Your task to perform on an android device: Clear the cart on amazon. Add "macbook air" to the cart on amazon Image 0: 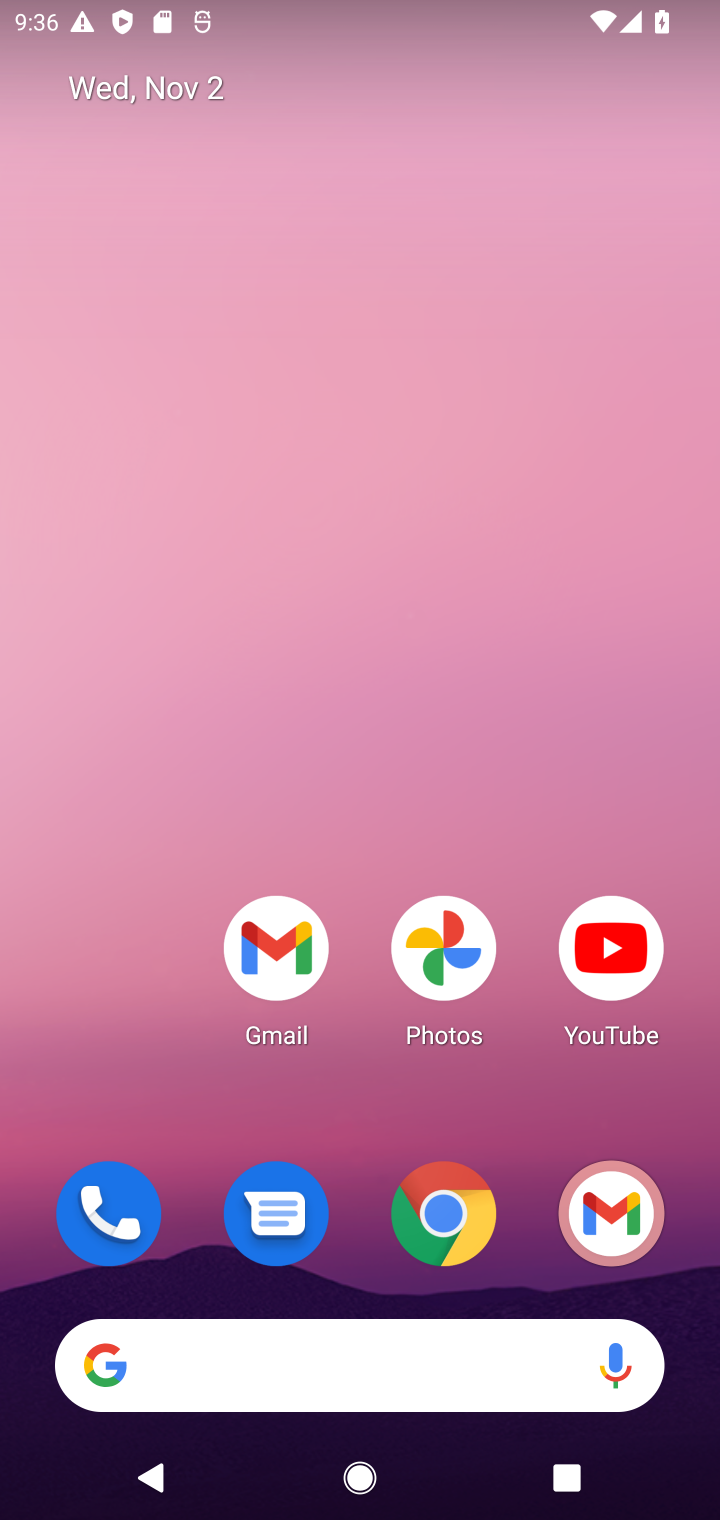
Step 0: click (450, 1230)
Your task to perform on an android device: Clear the cart on amazon. Add "macbook air" to the cart on amazon Image 1: 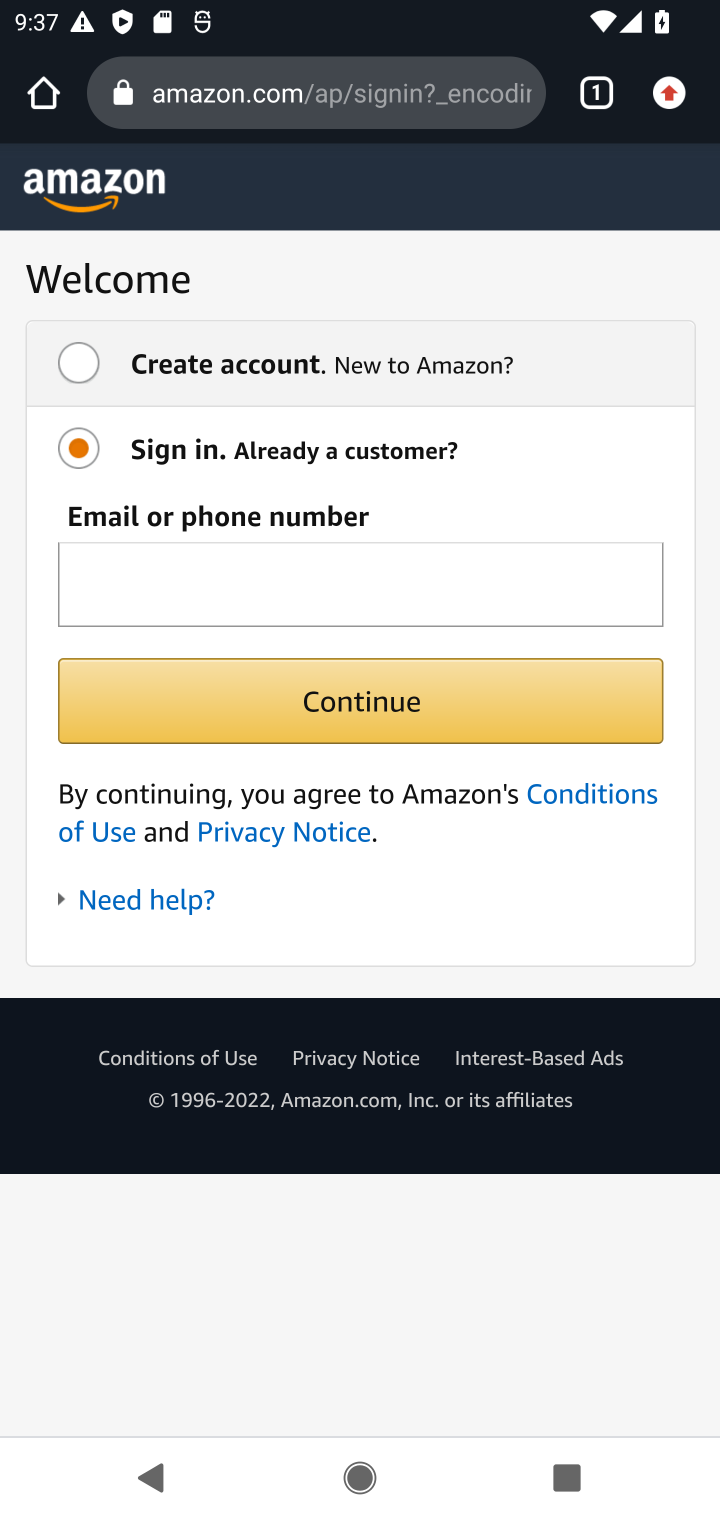
Step 1: press back button
Your task to perform on an android device: Clear the cart on amazon. Add "macbook air" to the cart on amazon Image 2: 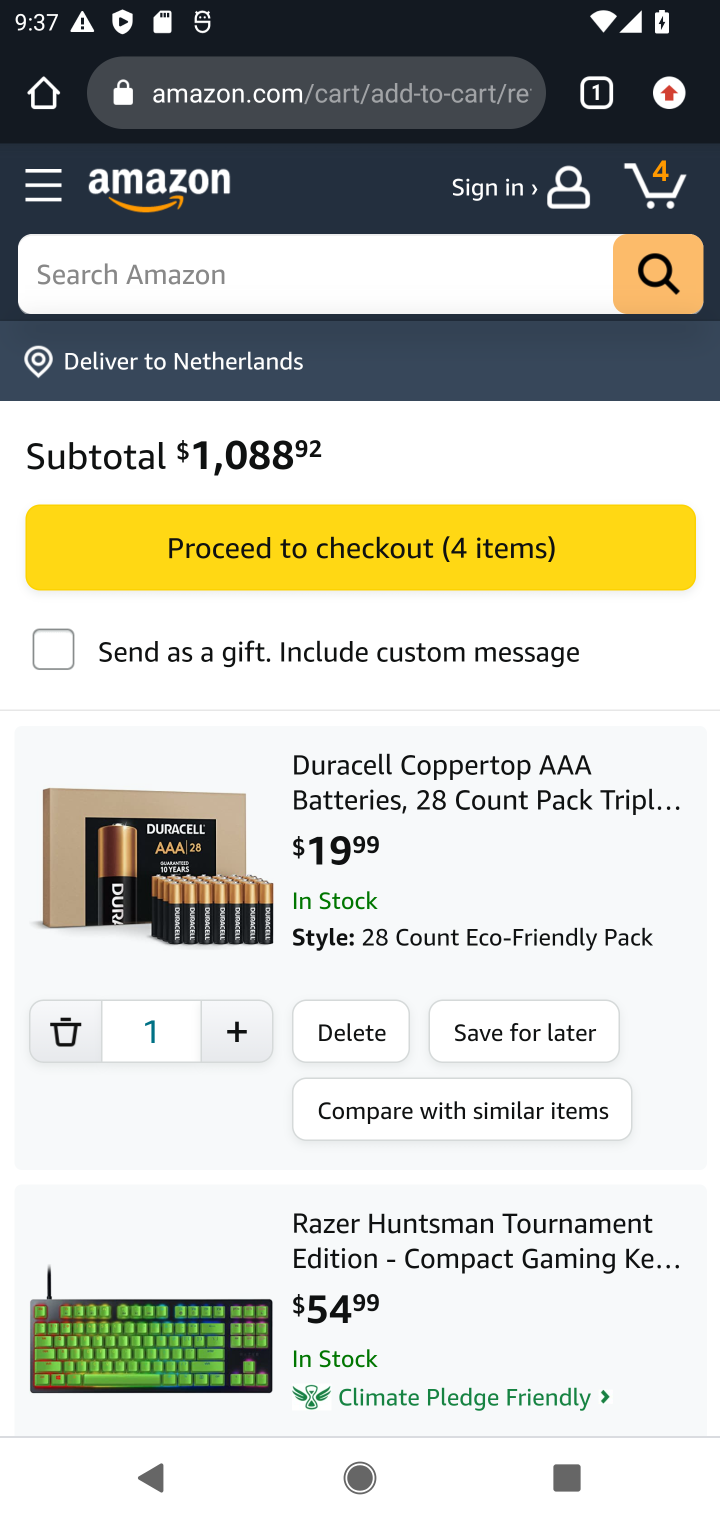
Step 2: click (291, 290)
Your task to perform on an android device: Clear the cart on amazon. Add "macbook air" to the cart on amazon Image 3: 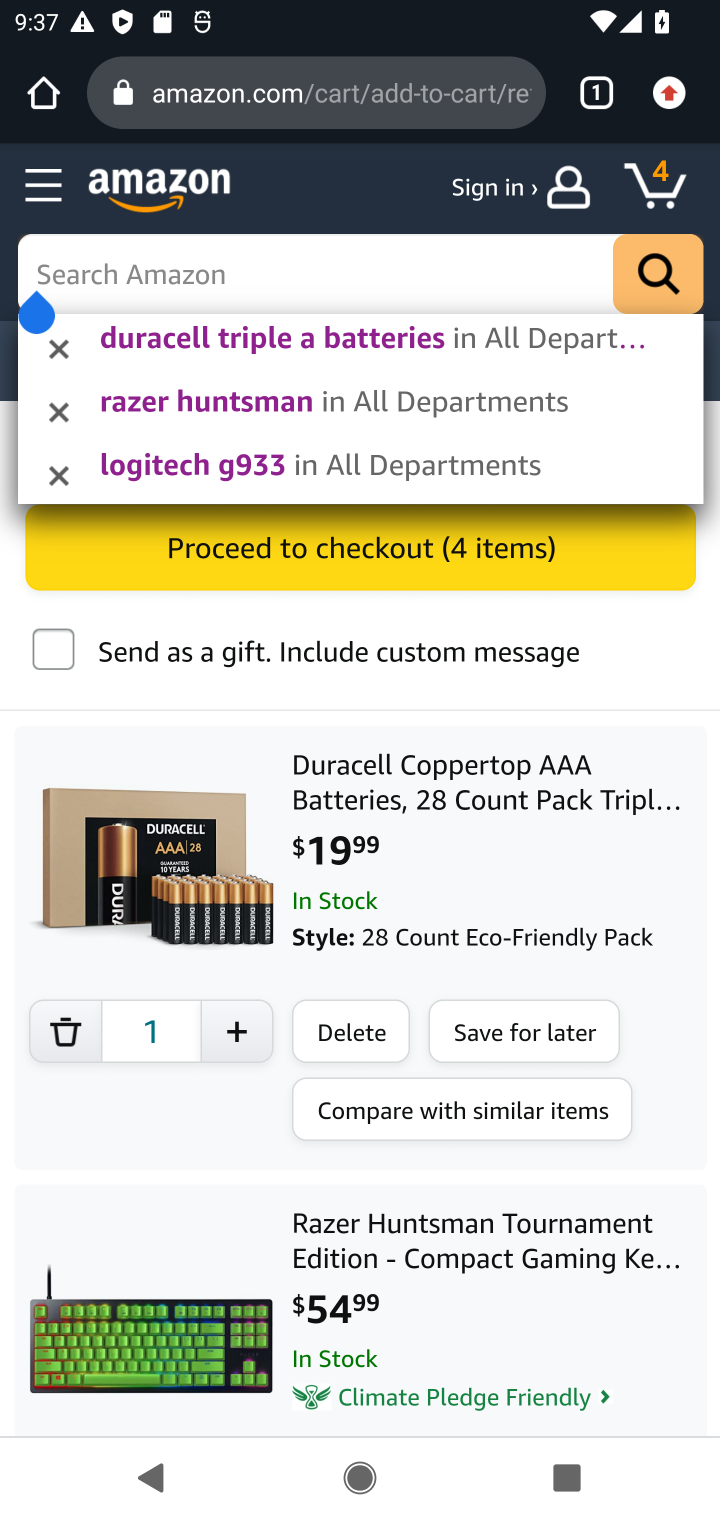
Step 3: click (354, 1031)
Your task to perform on an android device: Clear the cart on amazon. Add "macbook air" to the cart on amazon Image 4: 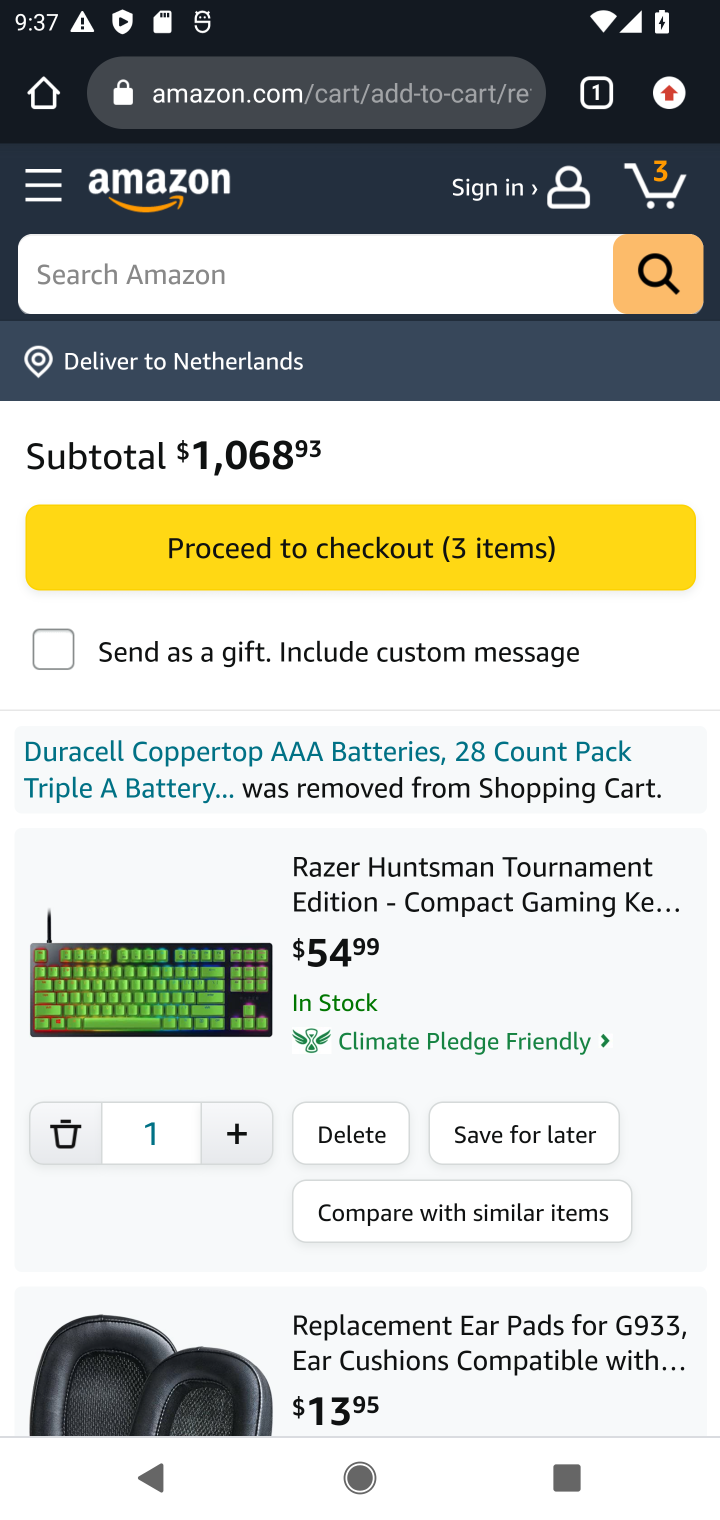
Step 4: click (348, 1143)
Your task to perform on an android device: Clear the cart on amazon. Add "macbook air" to the cart on amazon Image 5: 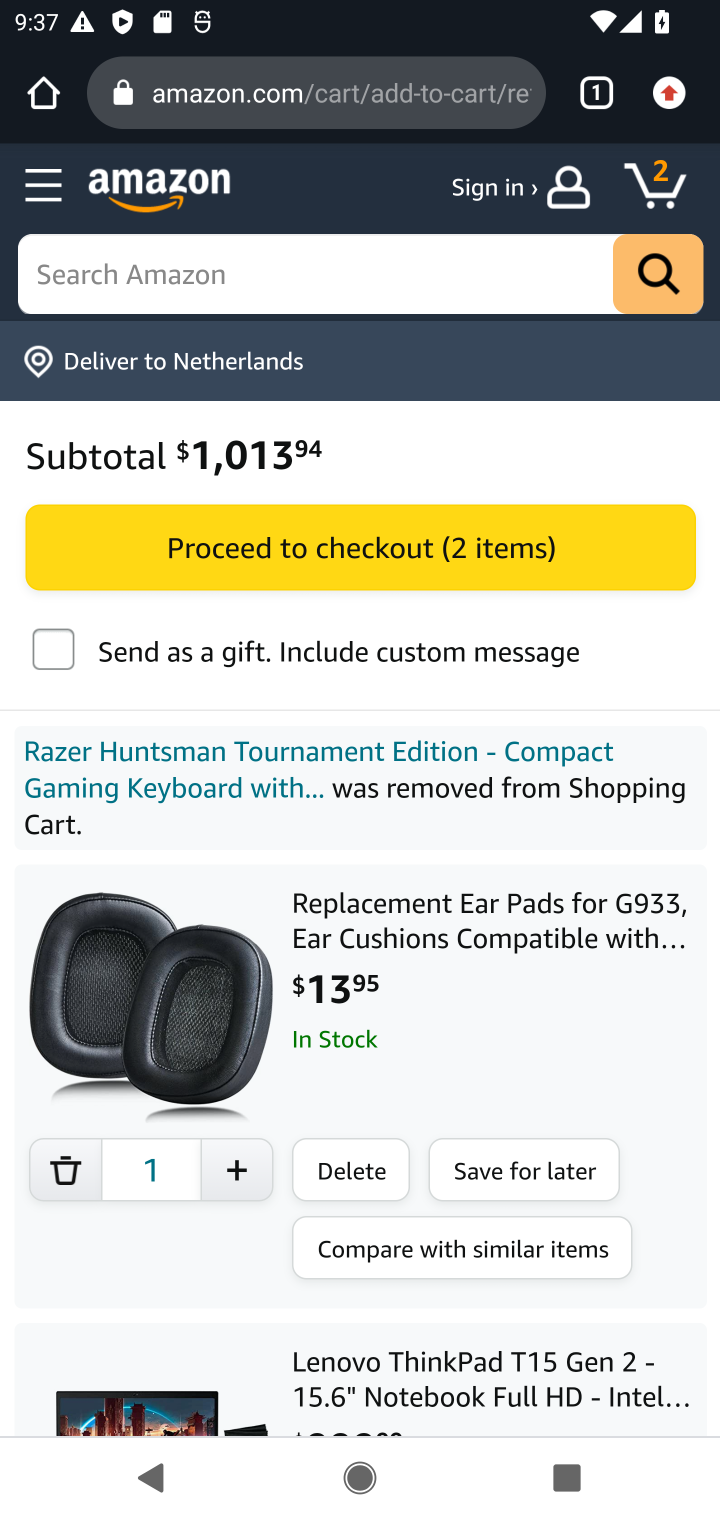
Step 5: click (350, 1175)
Your task to perform on an android device: Clear the cart on amazon. Add "macbook air" to the cart on amazon Image 6: 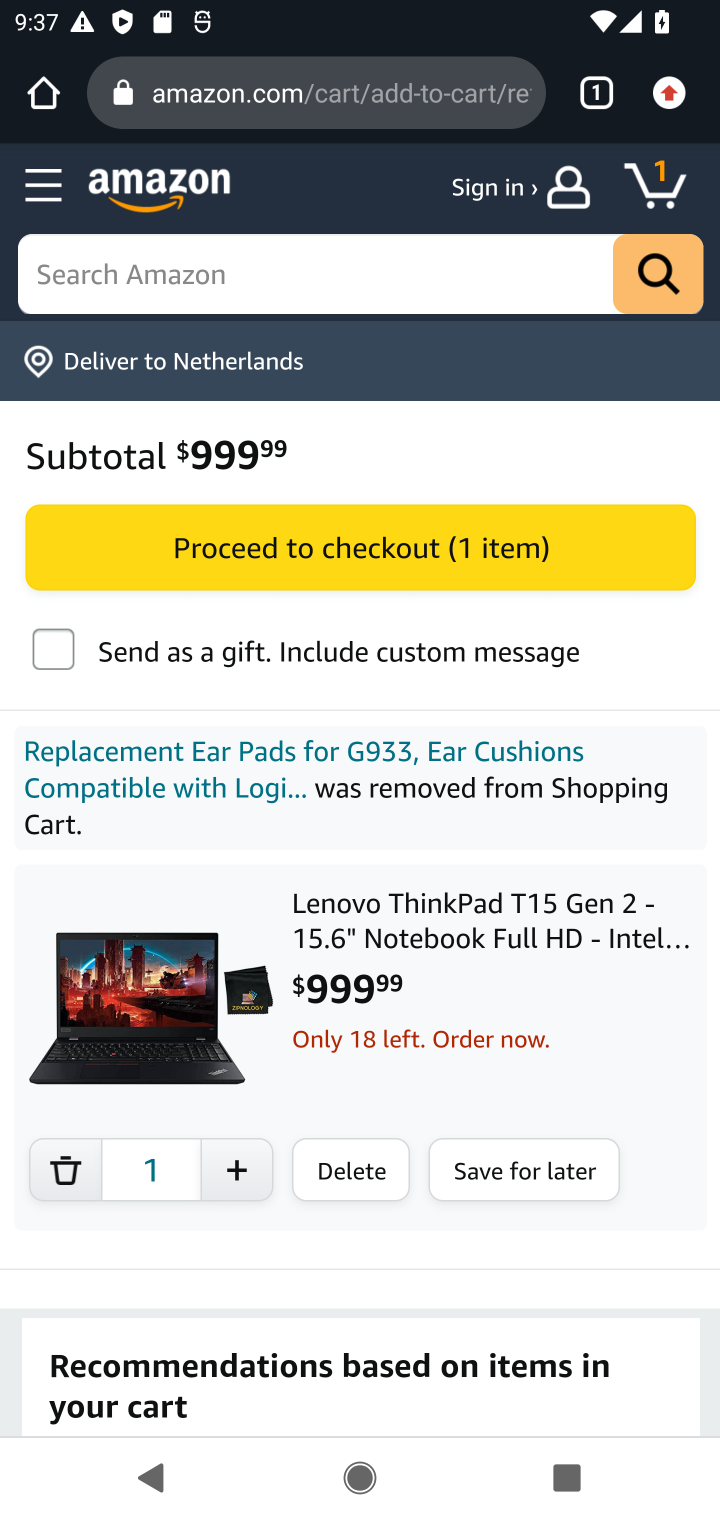
Step 6: click (350, 1175)
Your task to perform on an android device: Clear the cart on amazon. Add "macbook air" to the cart on amazon Image 7: 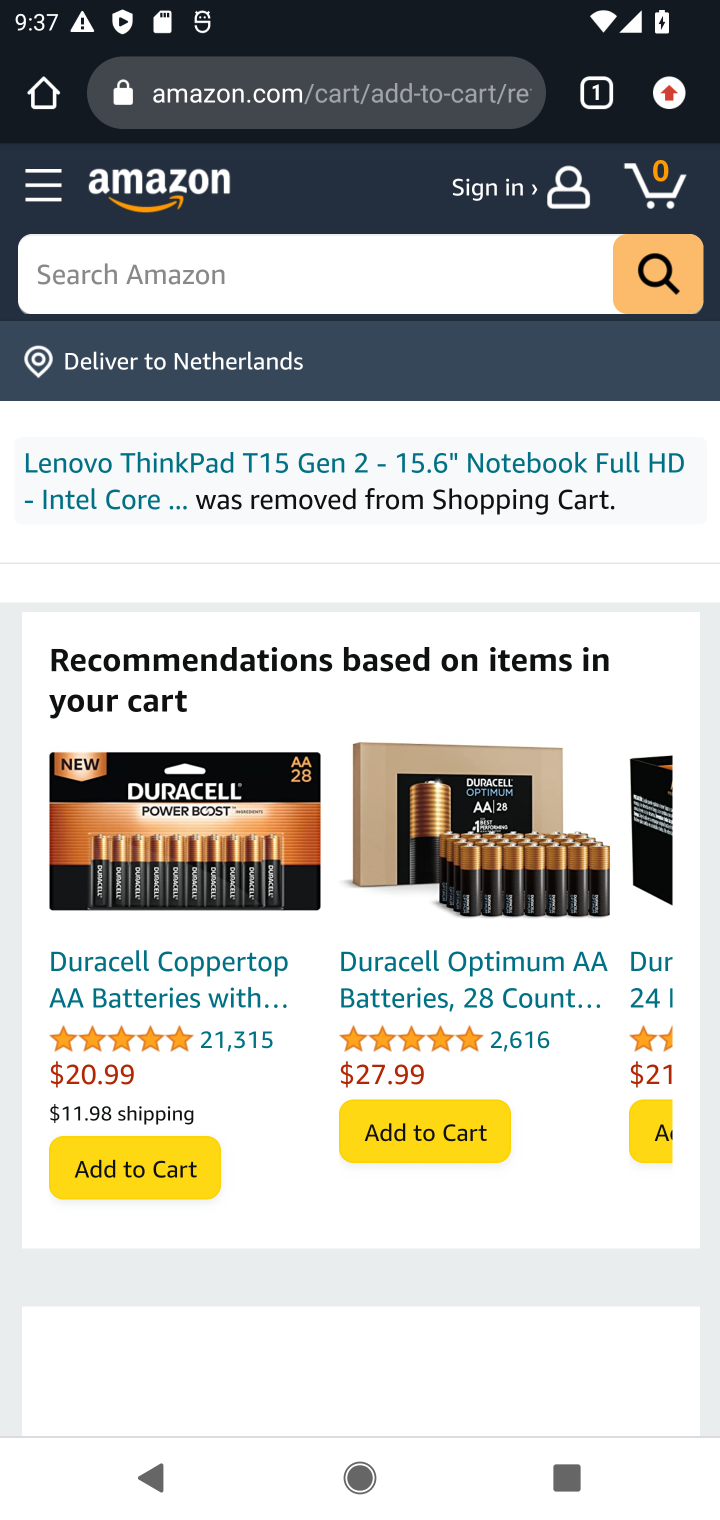
Step 7: click (268, 260)
Your task to perform on an android device: Clear the cart on amazon. Add "macbook air" to the cart on amazon Image 8: 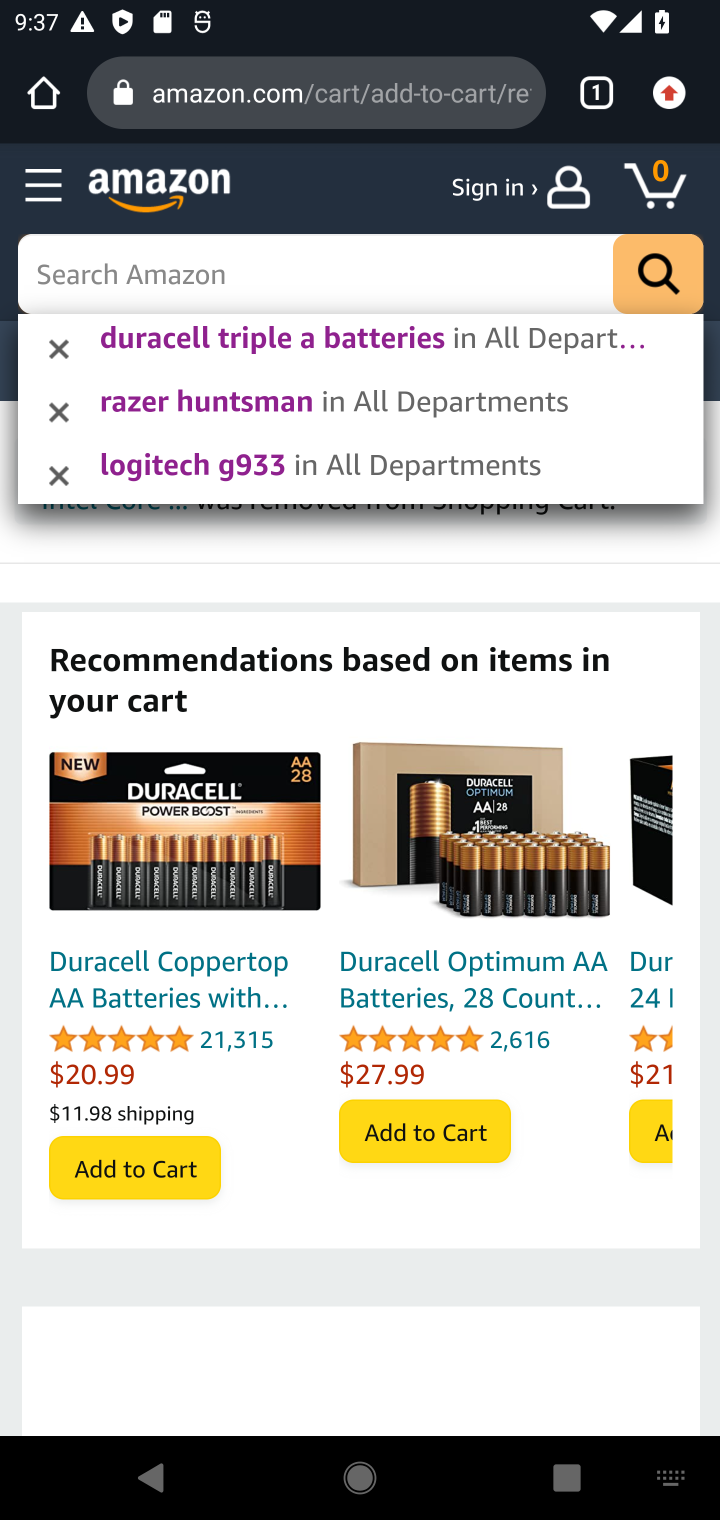
Step 8: type "macbook air"
Your task to perform on an android device: Clear the cart on amazon. Add "macbook air" to the cart on amazon Image 9: 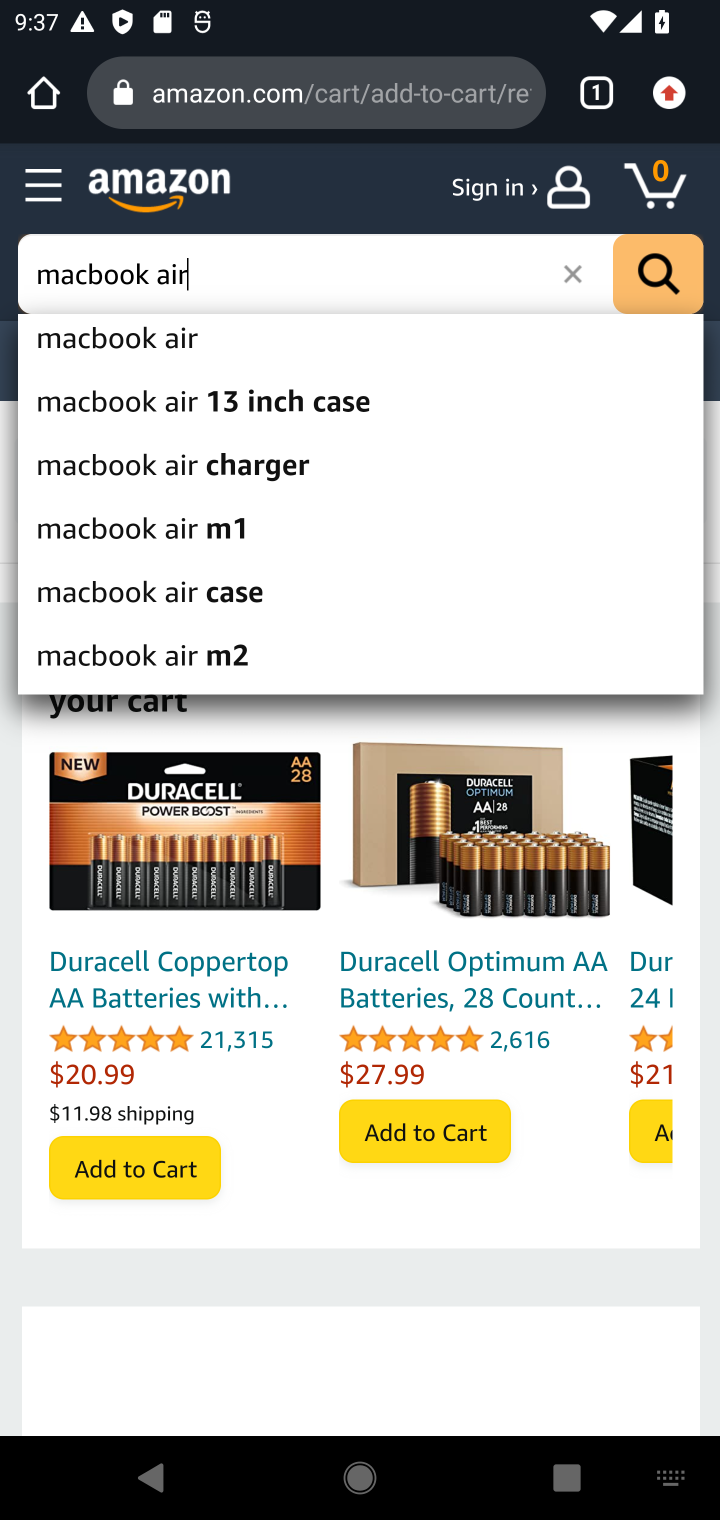
Step 9: click (138, 333)
Your task to perform on an android device: Clear the cart on amazon. Add "macbook air" to the cart on amazon Image 10: 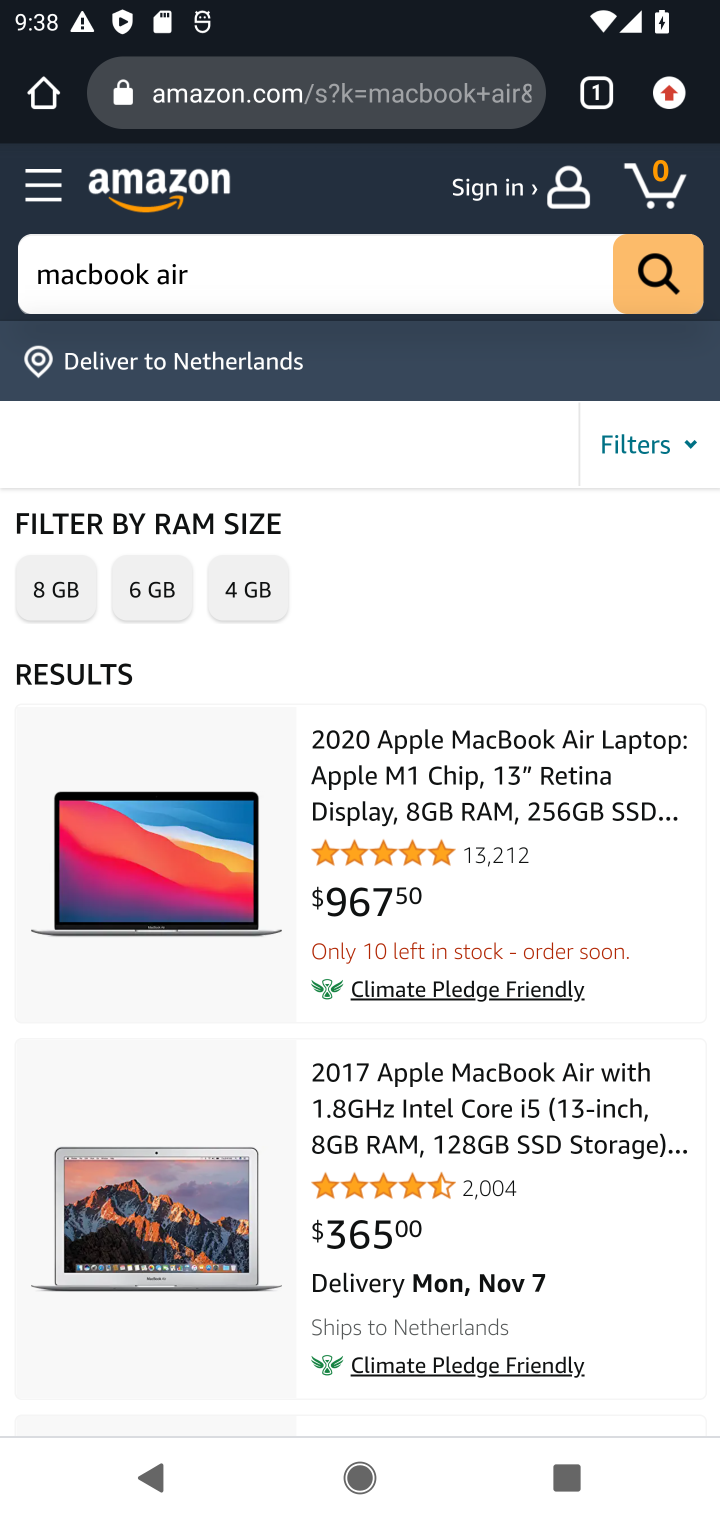
Step 10: click (409, 841)
Your task to perform on an android device: Clear the cart on amazon. Add "macbook air" to the cart on amazon Image 11: 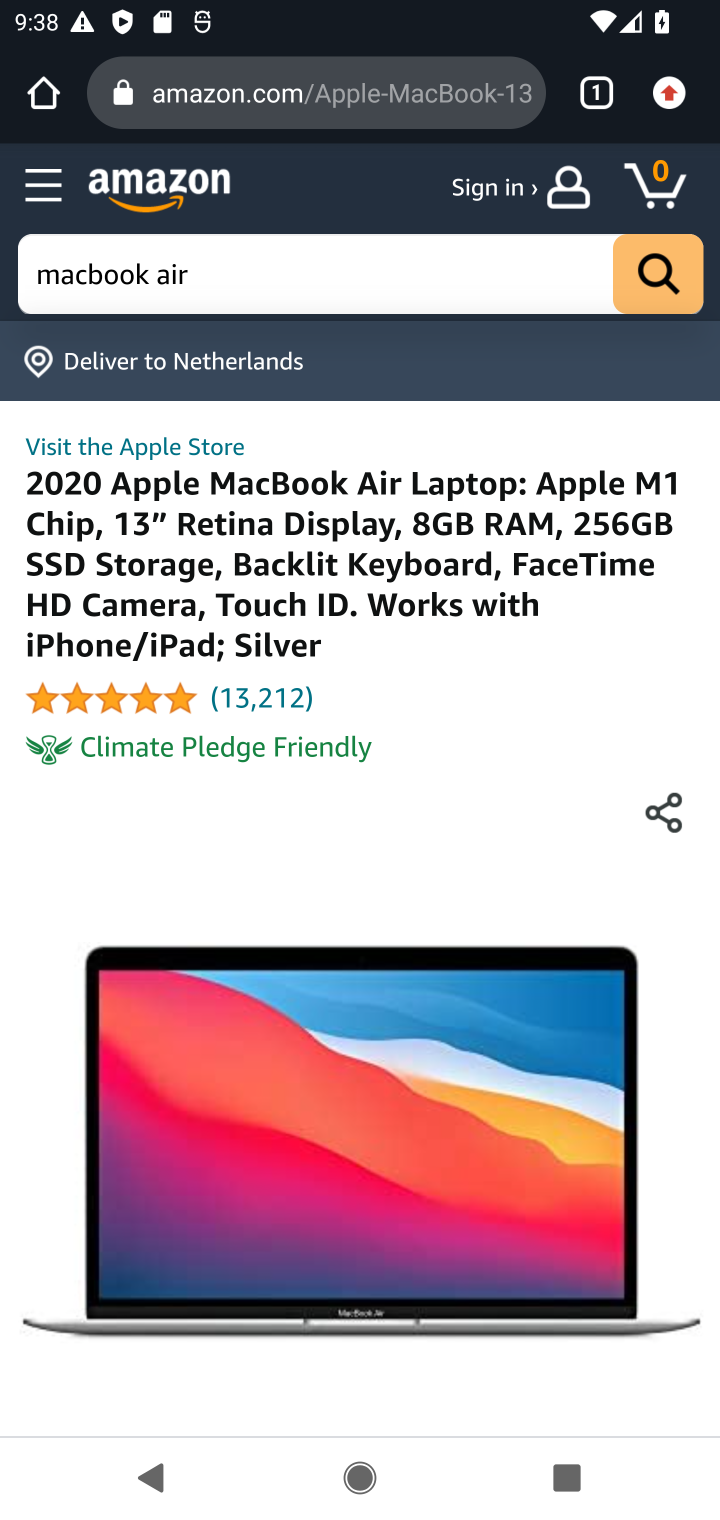
Step 11: drag from (382, 860) to (420, 302)
Your task to perform on an android device: Clear the cart on amazon. Add "macbook air" to the cart on amazon Image 12: 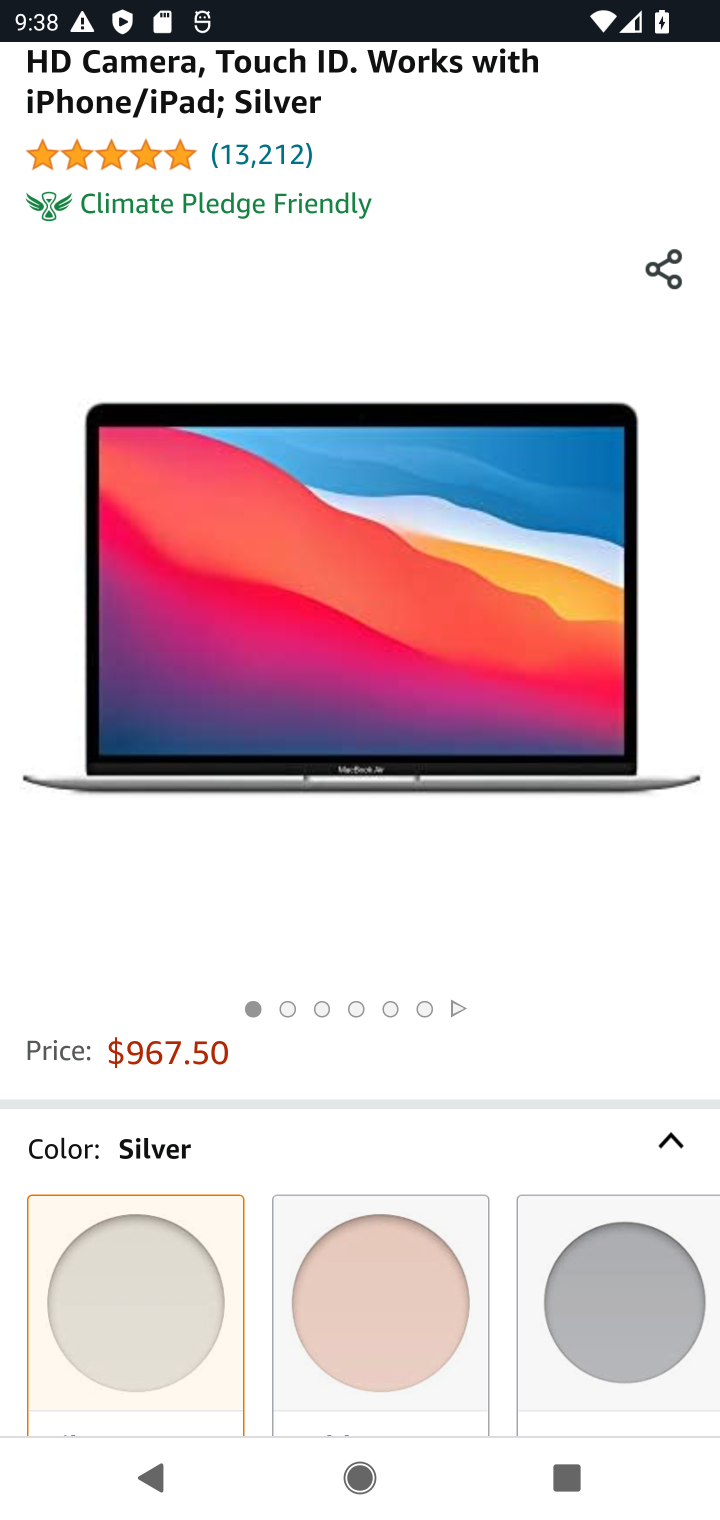
Step 12: drag from (390, 852) to (405, 402)
Your task to perform on an android device: Clear the cart on amazon. Add "macbook air" to the cart on amazon Image 13: 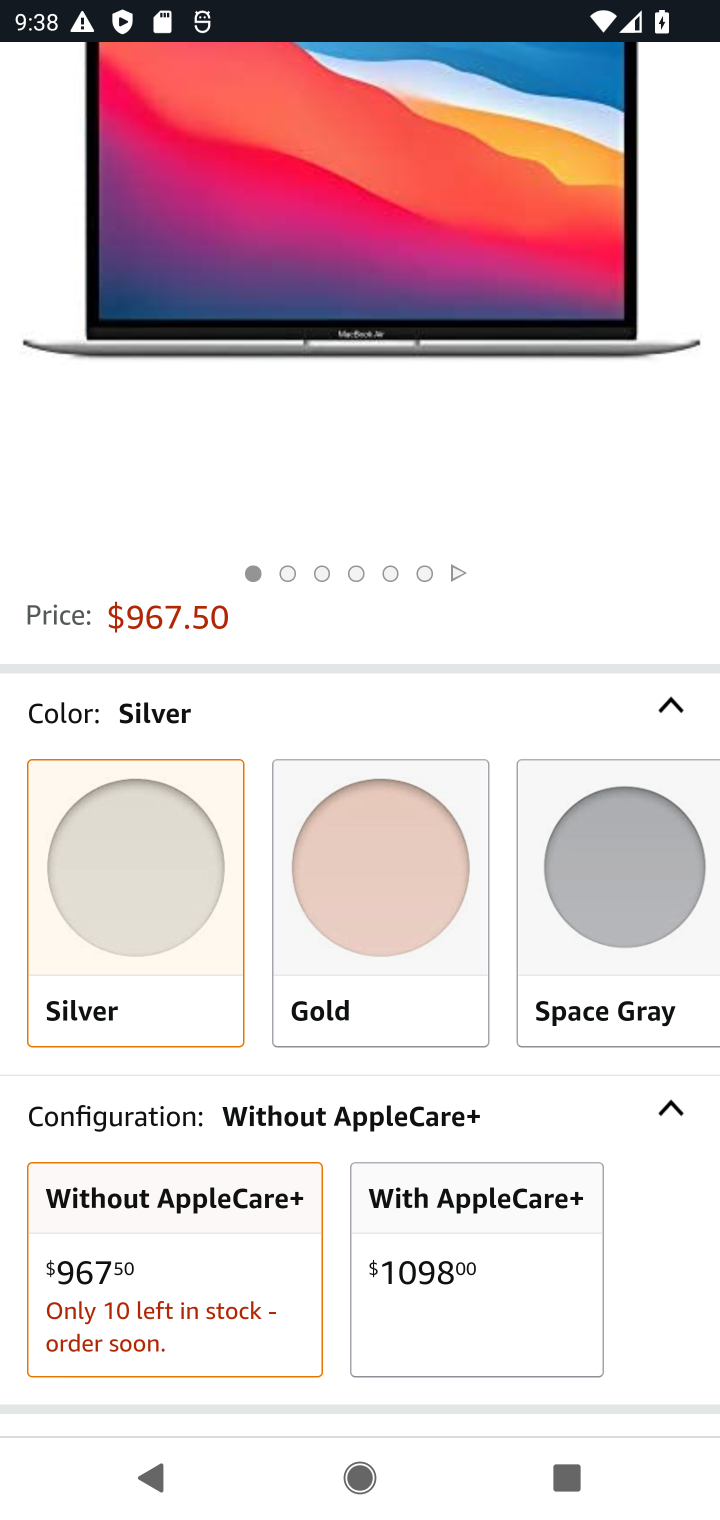
Step 13: drag from (408, 1072) to (440, 527)
Your task to perform on an android device: Clear the cart on amazon. Add "macbook air" to the cart on amazon Image 14: 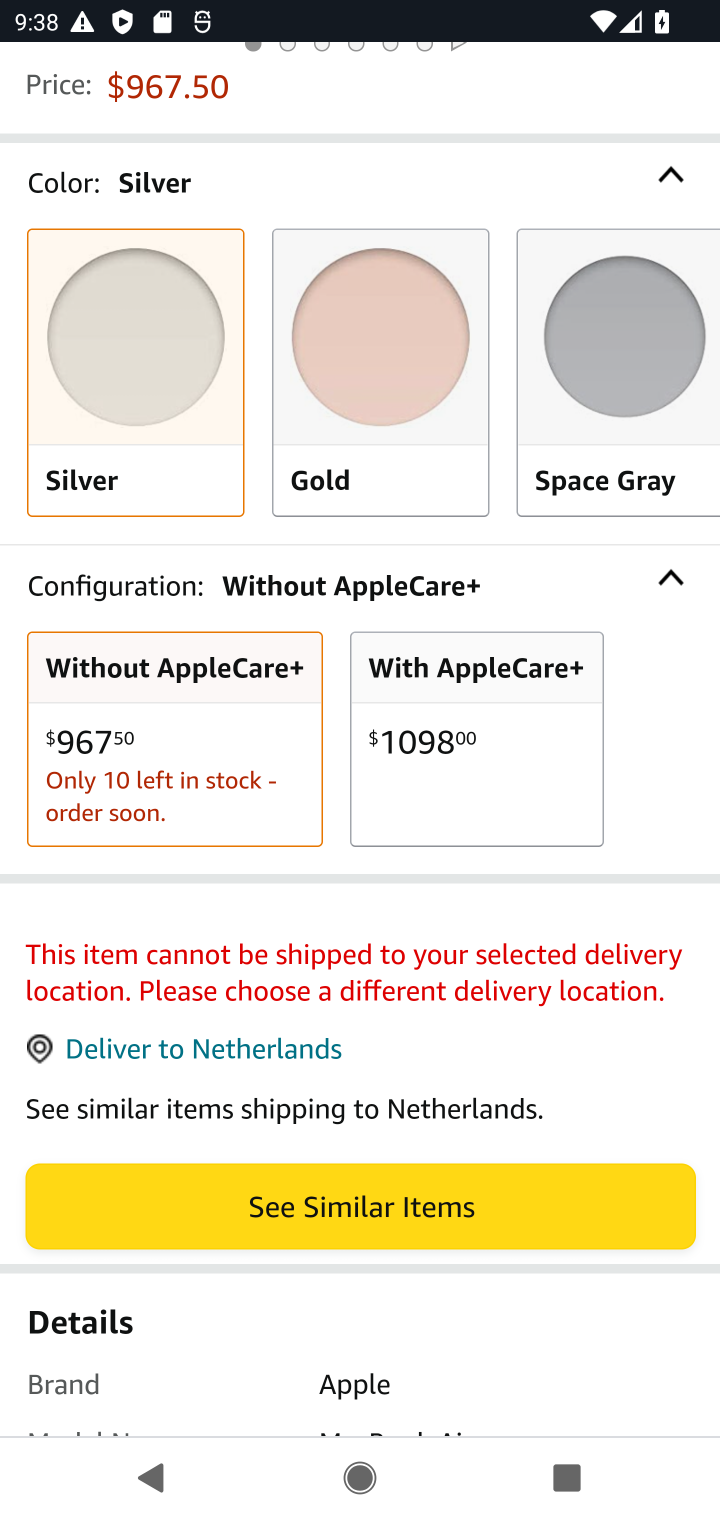
Step 14: drag from (399, 806) to (420, 1451)
Your task to perform on an android device: Clear the cart on amazon. Add "macbook air" to the cart on amazon Image 15: 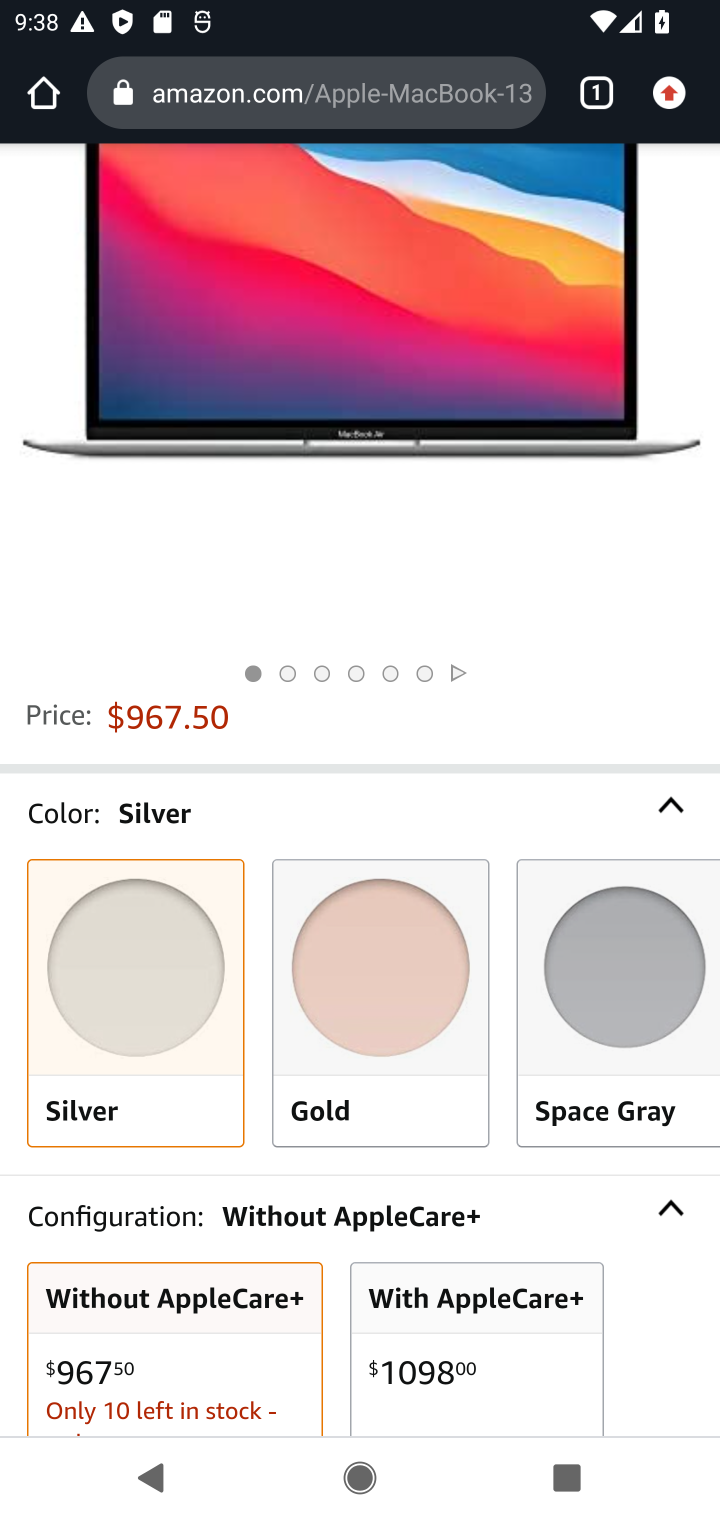
Step 15: drag from (429, 601) to (476, 1249)
Your task to perform on an android device: Clear the cart on amazon. Add "macbook air" to the cart on amazon Image 16: 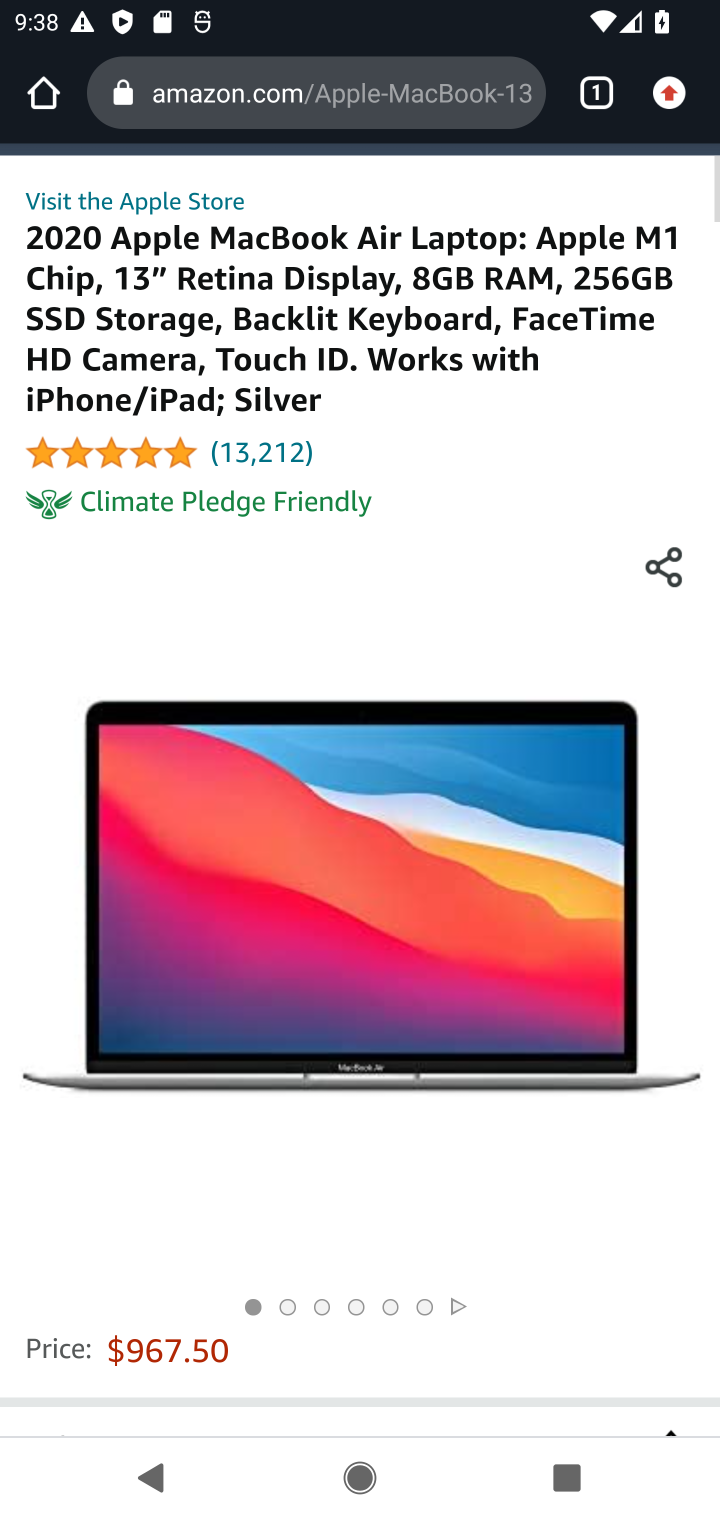
Step 16: press back button
Your task to perform on an android device: Clear the cart on amazon. Add "macbook air" to the cart on amazon Image 17: 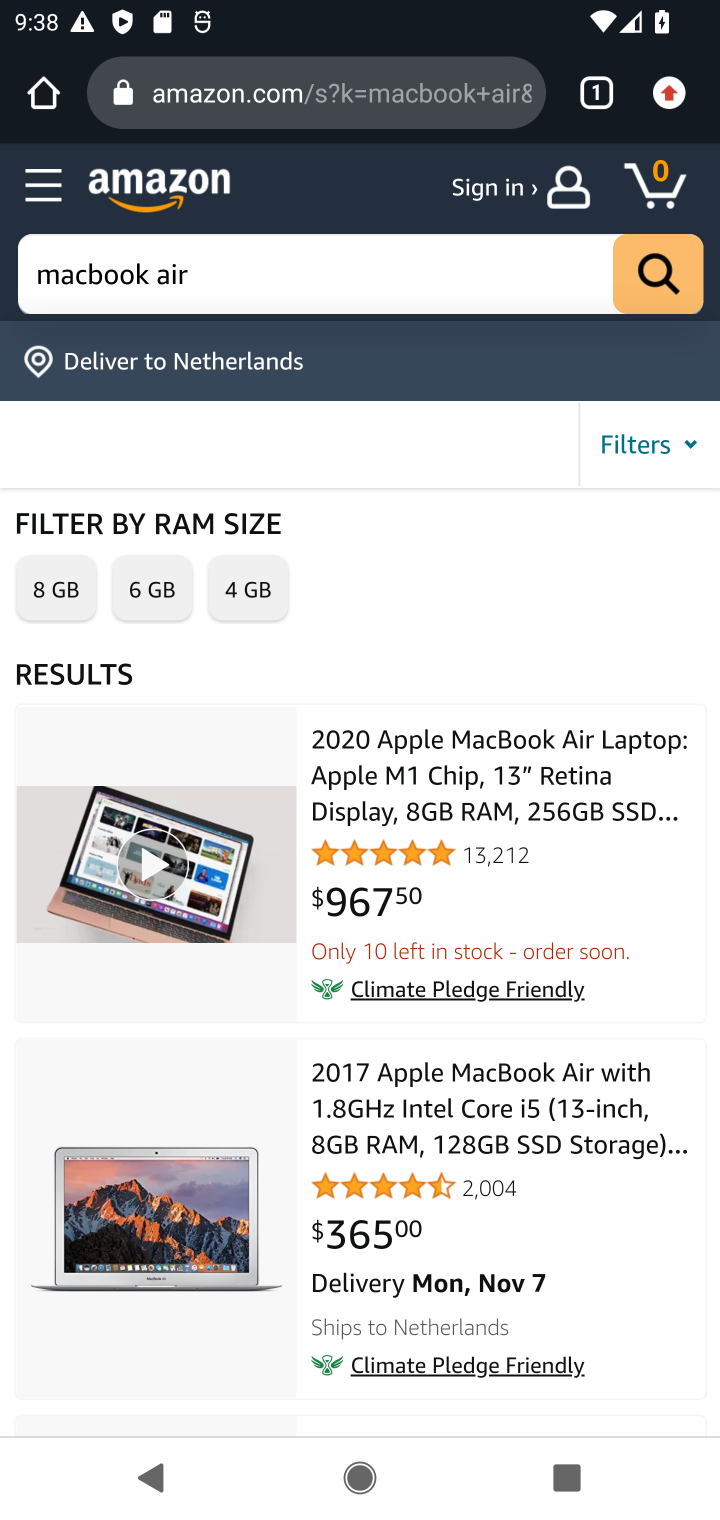
Step 17: click (345, 1172)
Your task to perform on an android device: Clear the cart on amazon. Add "macbook air" to the cart on amazon Image 18: 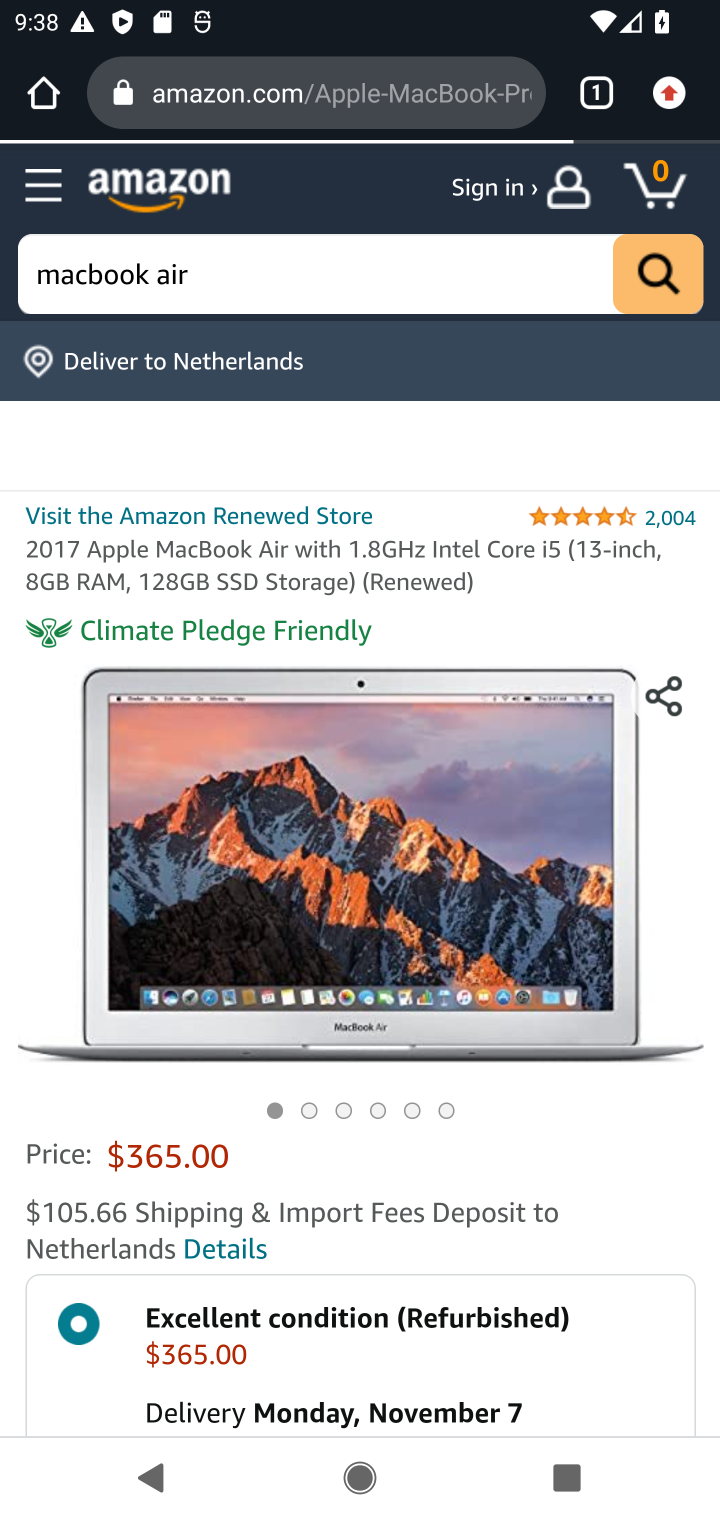
Step 18: drag from (418, 1145) to (410, 461)
Your task to perform on an android device: Clear the cart on amazon. Add "macbook air" to the cart on amazon Image 19: 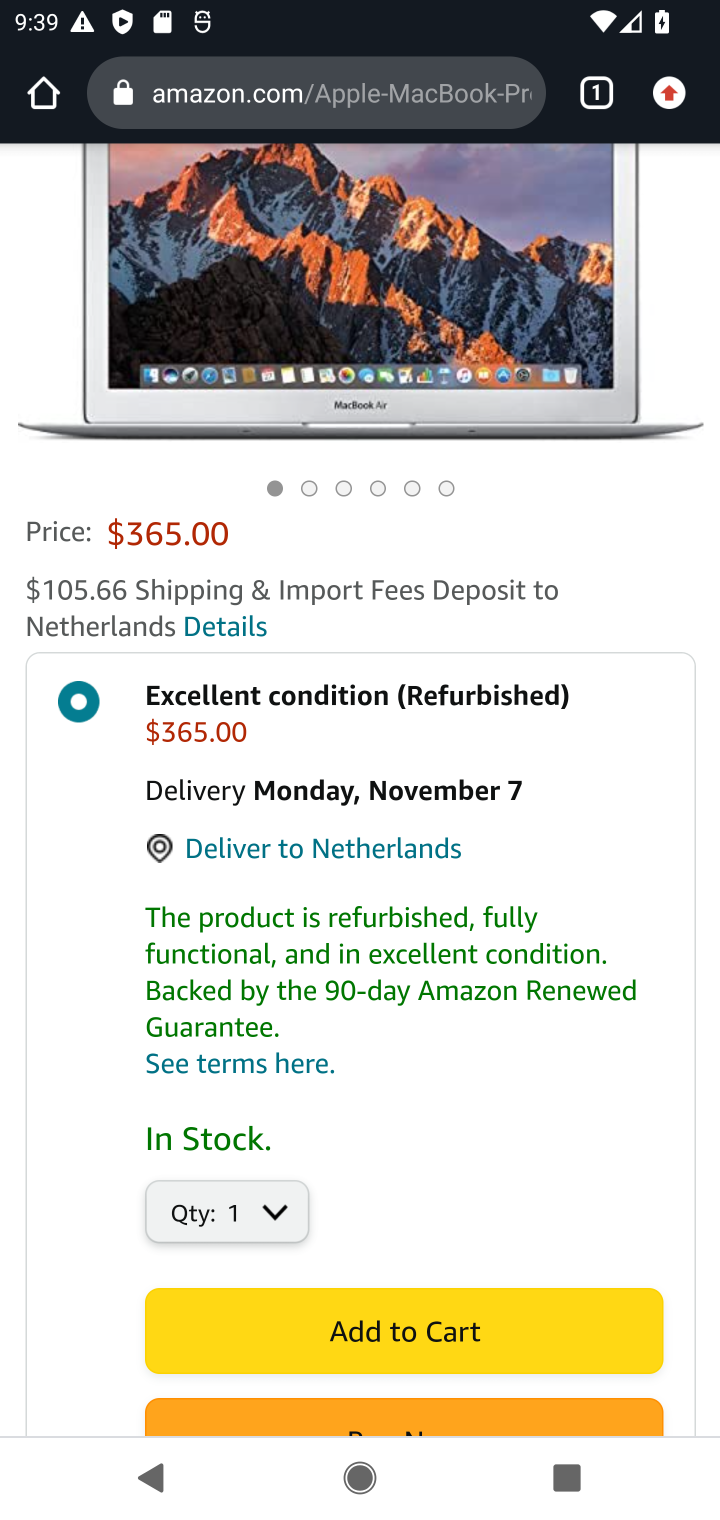
Step 19: click (396, 1331)
Your task to perform on an android device: Clear the cart on amazon. Add "macbook air" to the cart on amazon Image 20: 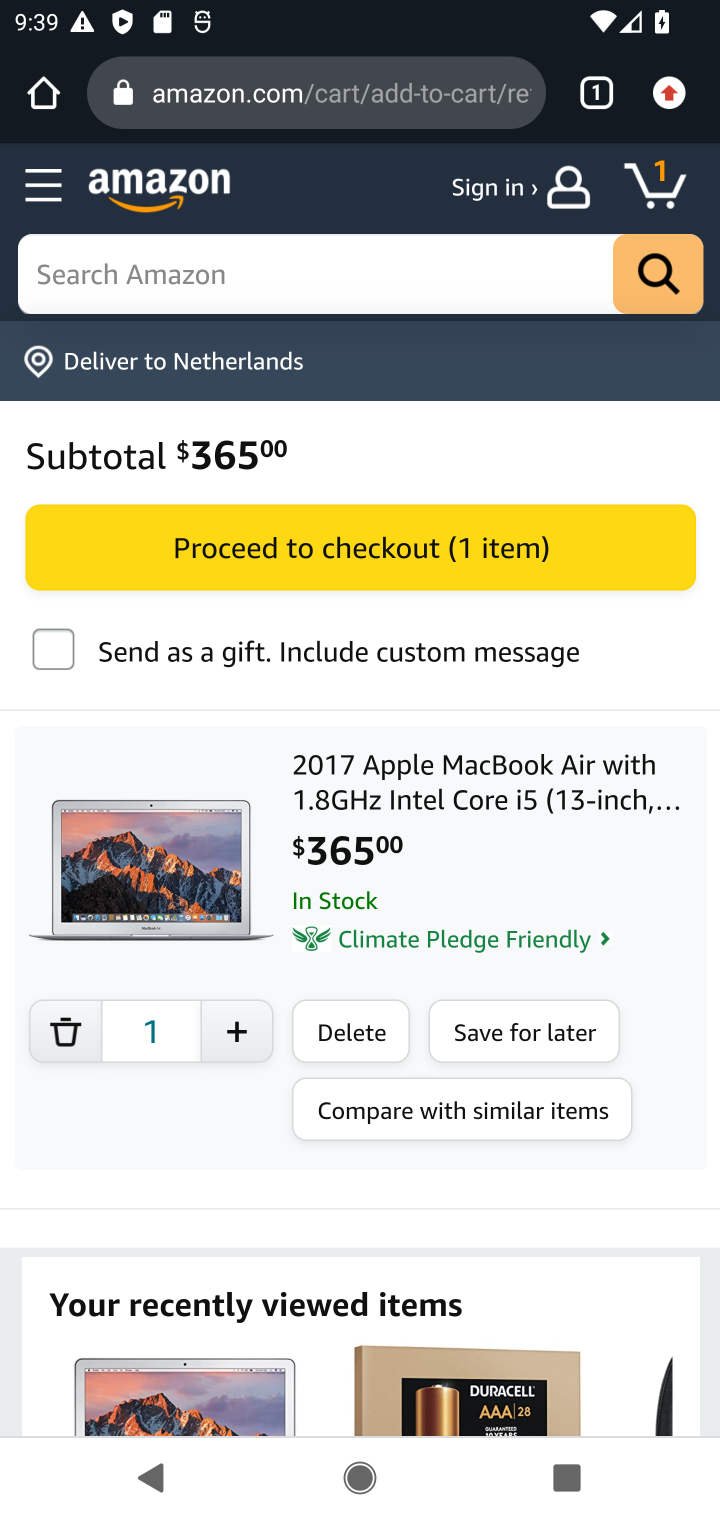
Step 20: task complete